Your task to perform on an android device: install app "Venmo" Image 0: 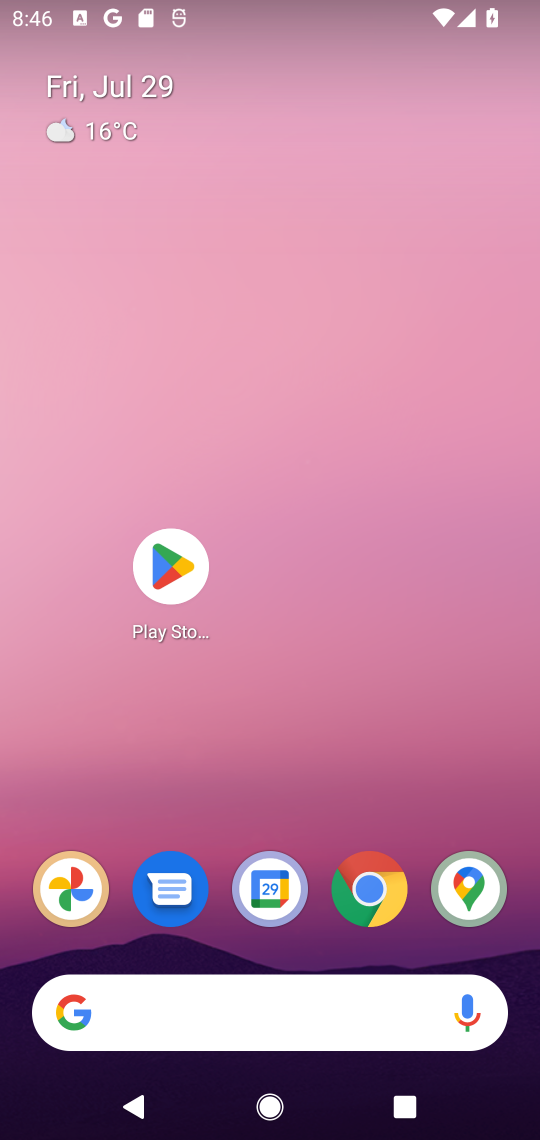
Step 0: press home button
Your task to perform on an android device: install app "Venmo" Image 1: 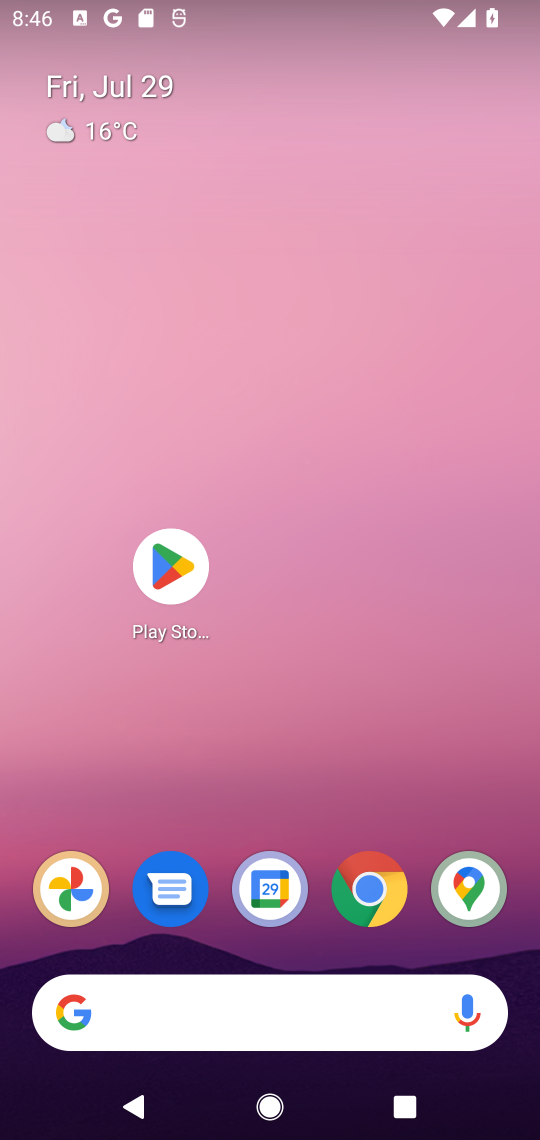
Step 1: click (168, 567)
Your task to perform on an android device: install app "Venmo" Image 2: 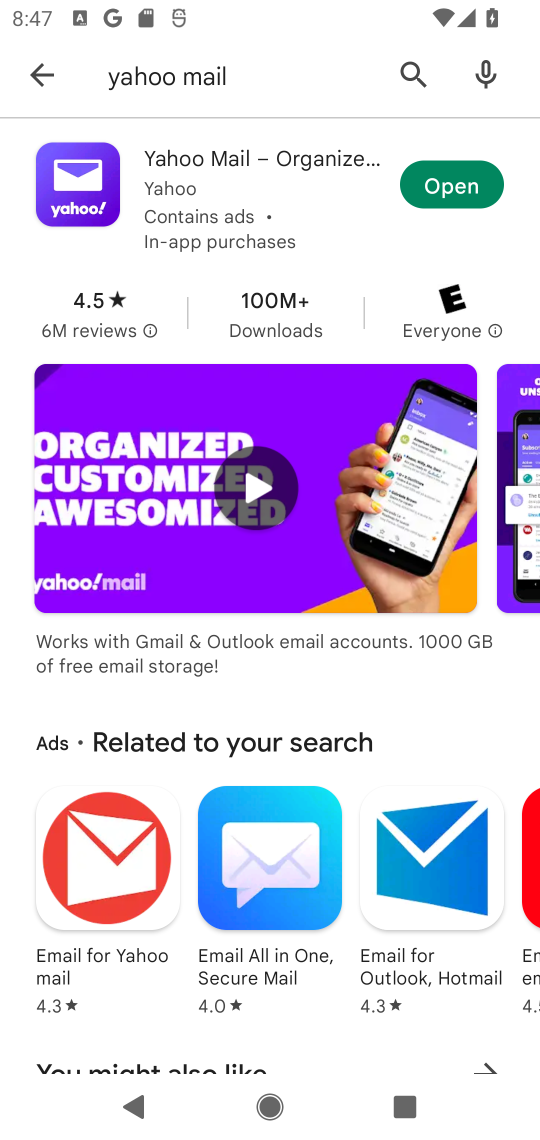
Step 2: click (408, 69)
Your task to perform on an android device: install app "Venmo" Image 3: 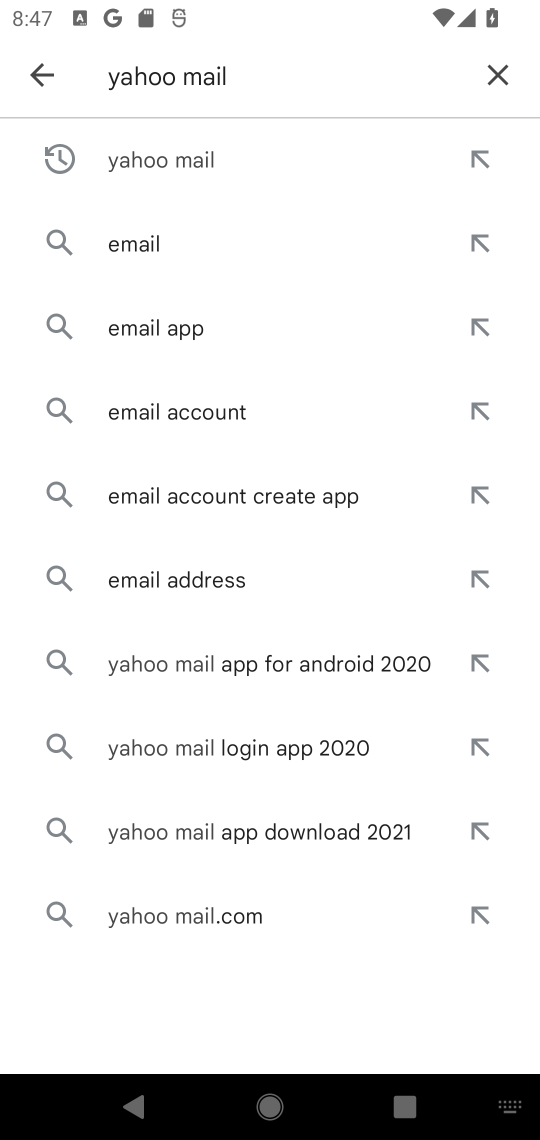
Step 3: click (489, 68)
Your task to perform on an android device: install app "Venmo" Image 4: 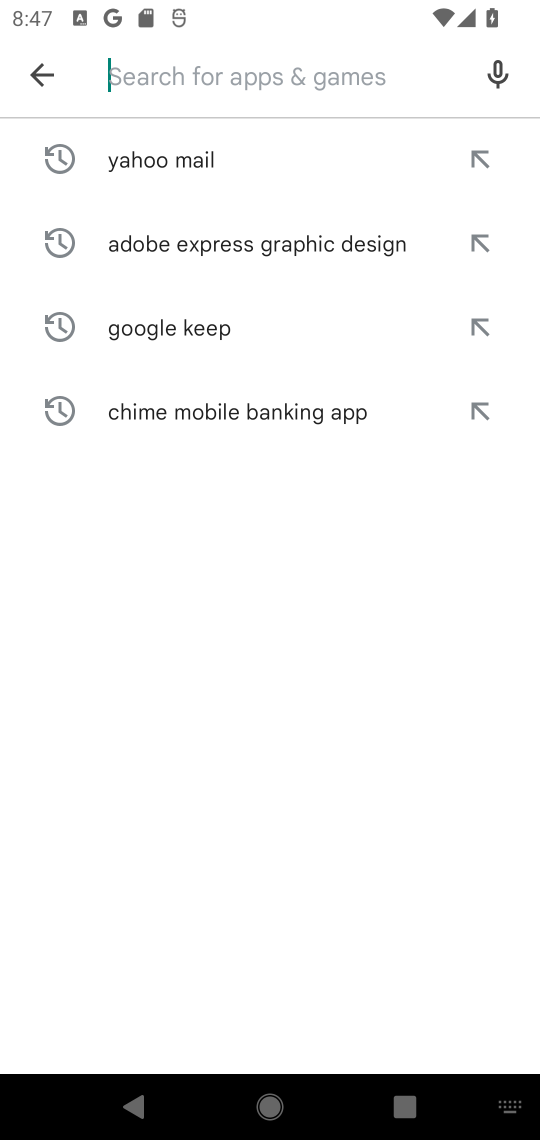
Step 4: type "Venmo"
Your task to perform on an android device: install app "Venmo" Image 5: 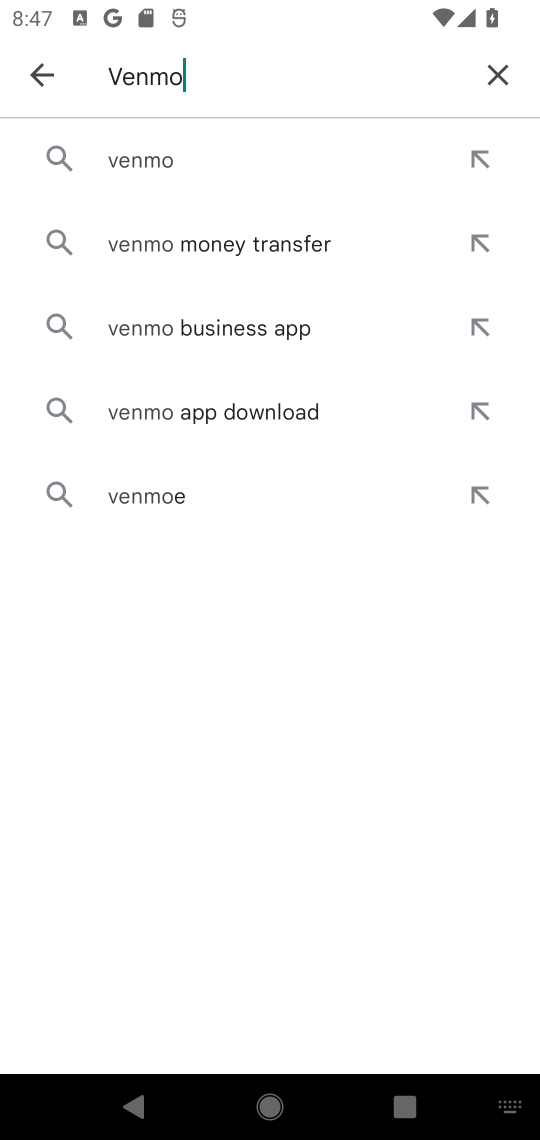
Step 5: click (163, 155)
Your task to perform on an android device: install app "Venmo" Image 6: 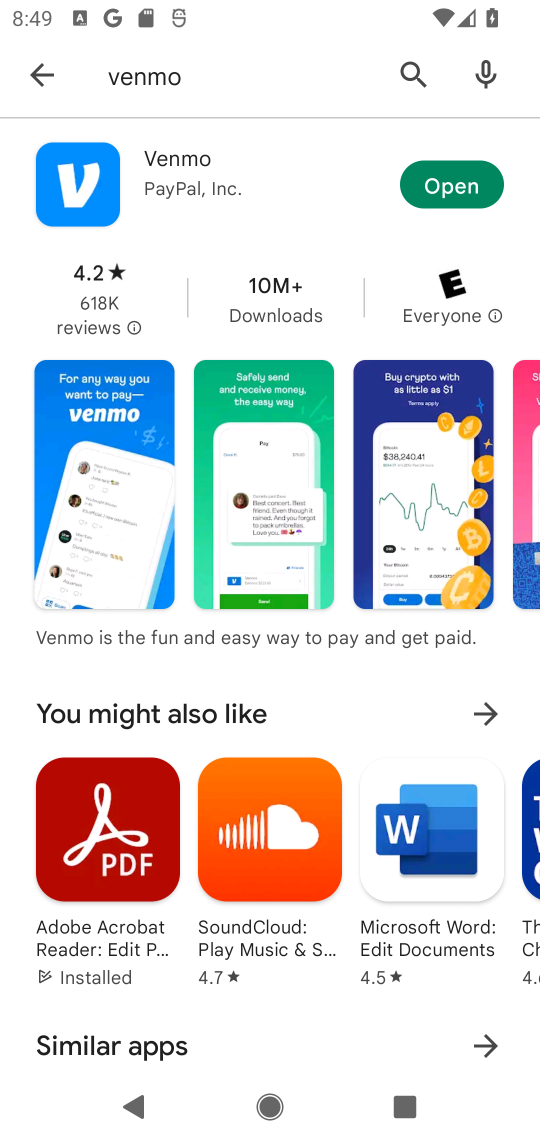
Step 6: task complete